Your task to perform on an android device: turn off priority inbox in the gmail app Image 0: 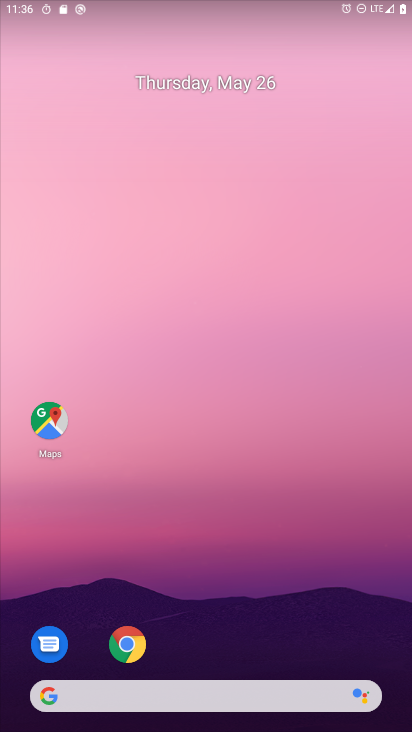
Step 0: drag from (362, 646) to (359, 314)
Your task to perform on an android device: turn off priority inbox in the gmail app Image 1: 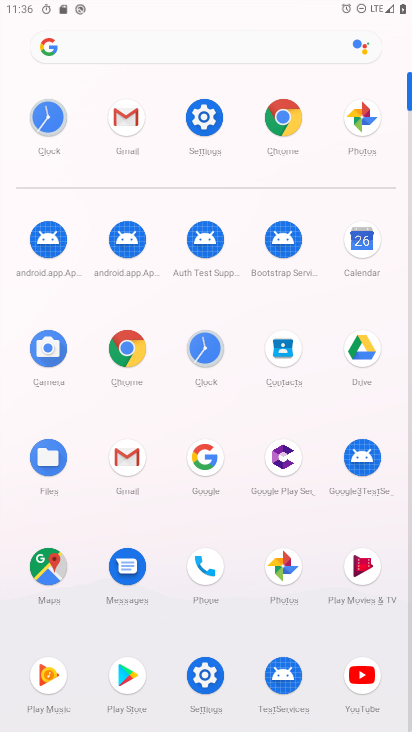
Step 1: click (128, 468)
Your task to perform on an android device: turn off priority inbox in the gmail app Image 2: 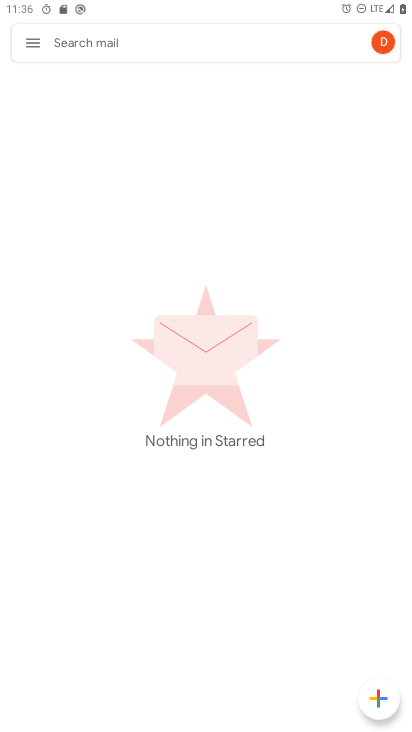
Step 2: click (34, 49)
Your task to perform on an android device: turn off priority inbox in the gmail app Image 3: 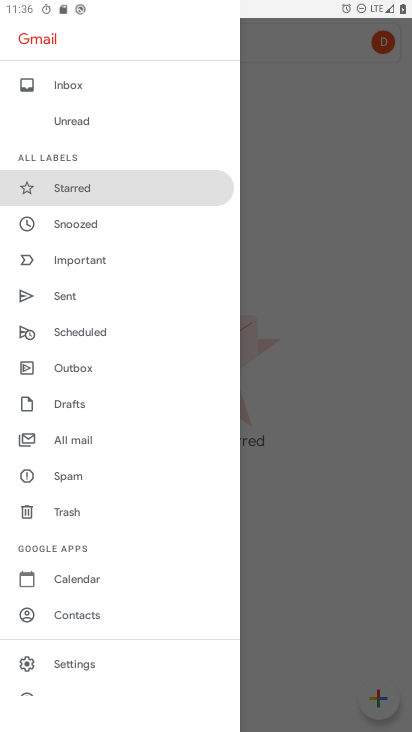
Step 3: click (89, 664)
Your task to perform on an android device: turn off priority inbox in the gmail app Image 4: 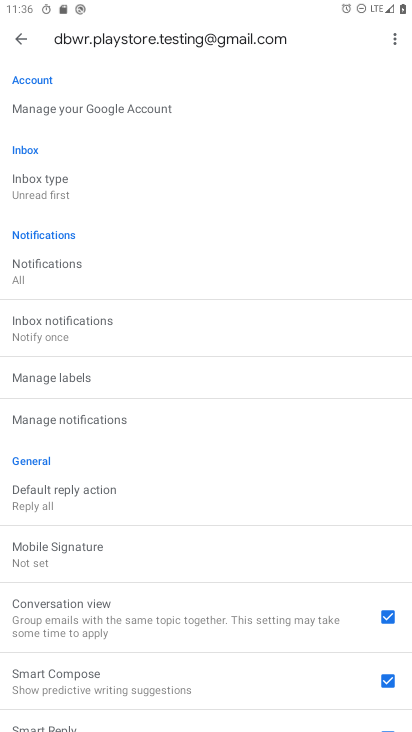
Step 4: task complete